Your task to perform on an android device: change the clock display to analog Image 0: 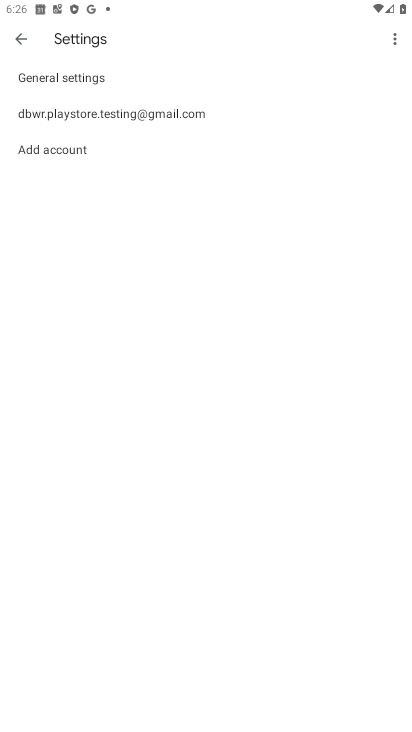
Step 0: press home button
Your task to perform on an android device: change the clock display to analog Image 1: 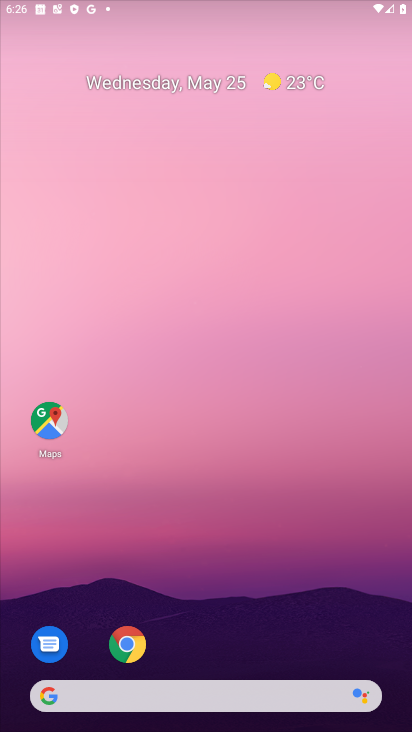
Step 1: drag from (394, 649) to (244, 24)
Your task to perform on an android device: change the clock display to analog Image 2: 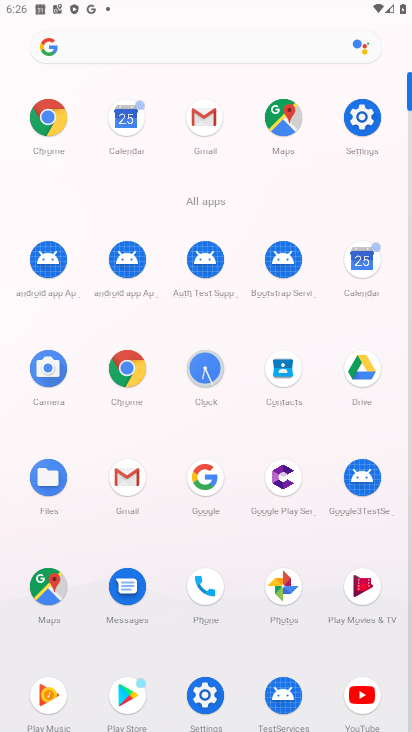
Step 2: click (195, 381)
Your task to perform on an android device: change the clock display to analog Image 3: 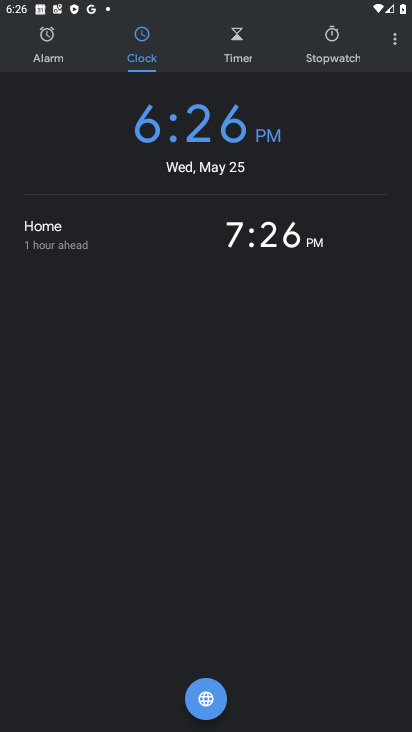
Step 3: click (399, 42)
Your task to perform on an android device: change the clock display to analog Image 4: 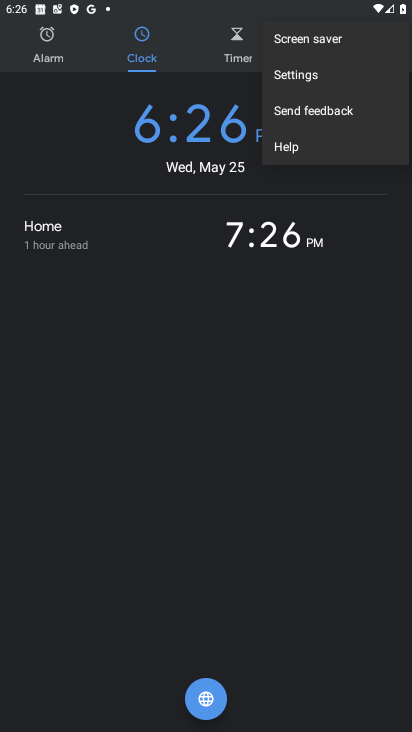
Step 4: click (303, 79)
Your task to perform on an android device: change the clock display to analog Image 5: 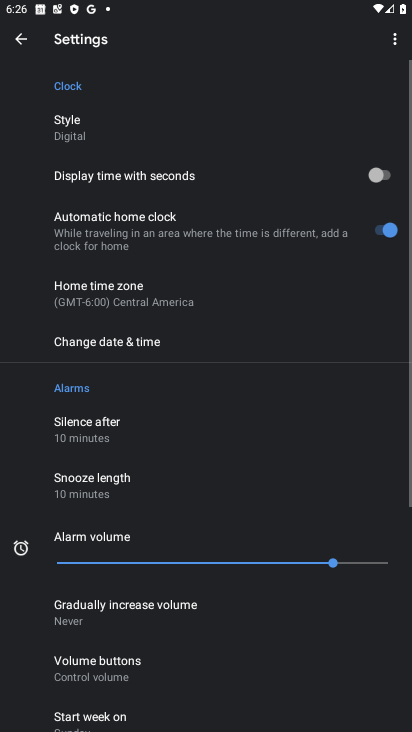
Step 5: click (89, 127)
Your task to perform on an android device: change the clock display to analog Image 6: 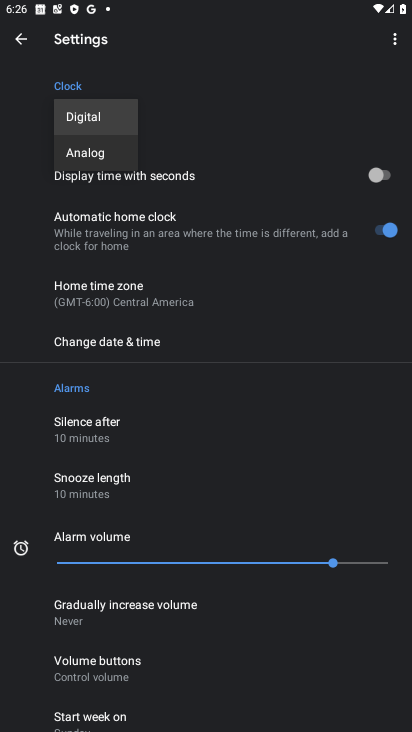
Step 6: click (84, 159)
Your task to perform on an android device: change the clock display to analog Image 7: 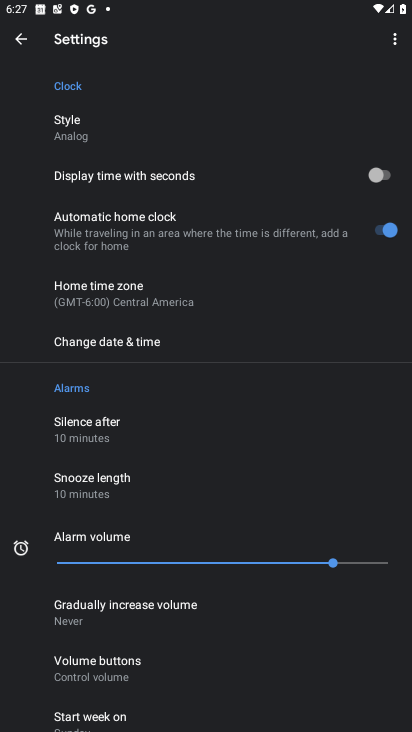
Step 7: task complete